Your task to perform on an android device: What's the weather going to be this weekend? Image 0: 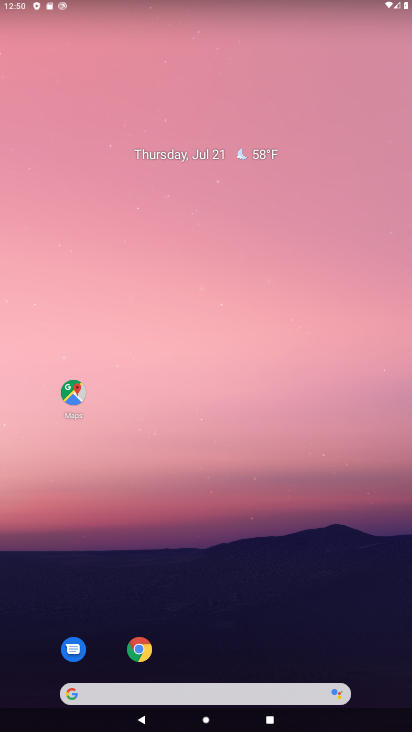
Step 0: drag from (233, 669) to (163, 194)
Your task to perform on an android device: What's the weather going to be this weekend? Image 1: 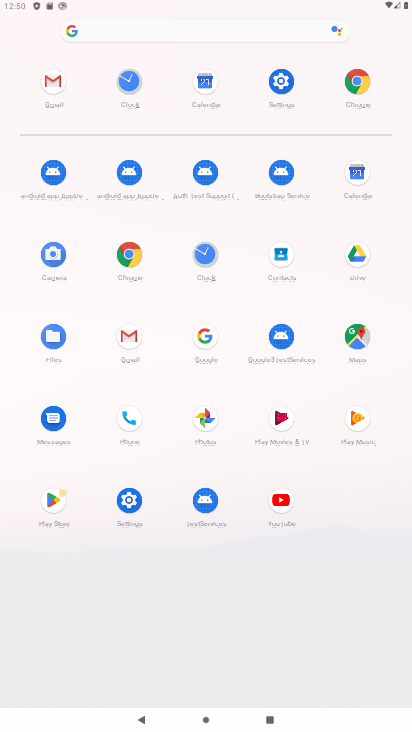
Step 1: click (155, 37)
Your task to perform on an android device: What's the weather going to be this weekend? Image 2: 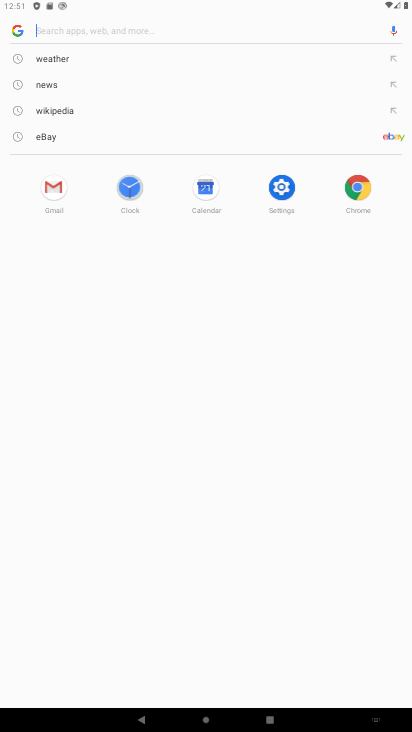
Step 2: click (201, 22)
Your task to perform on an android device: What's the weather going to be this weekend? Image 3: 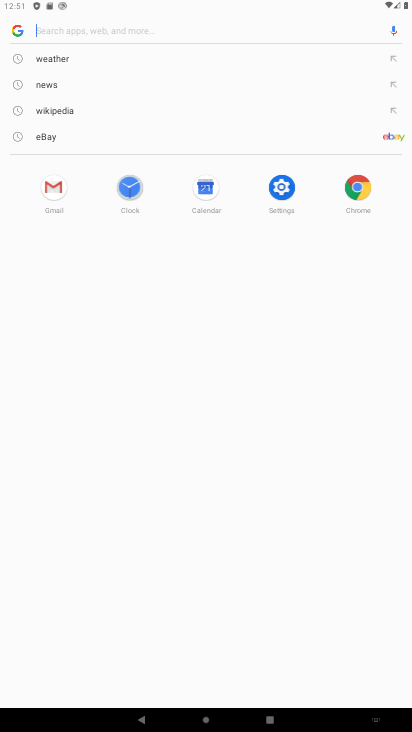
Step 3: click (126, 55)
Your task to perform on an android device: What's the weather going to be this weekend? Image 4: 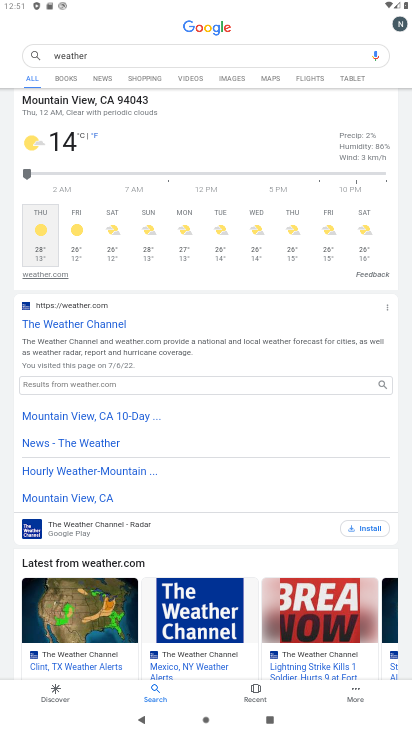
Step 4: task complete